Your task to perform on an android device: make emails show in primary in the gmail app Image 0: 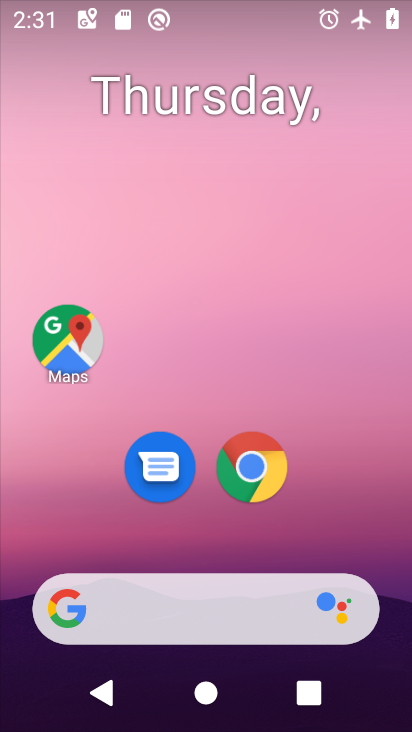
Step 0: drag from (215, 550) to (405, 723)
Your task to perform on an android device: make emails show in primary in the gmail app Image 1: 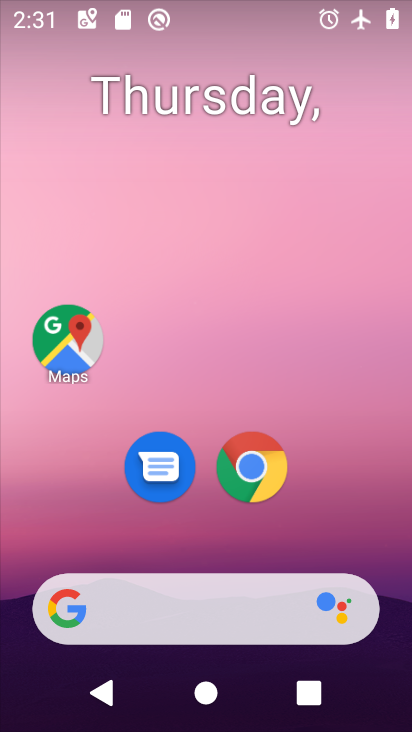
Step 1: drag from (261, 548) to (169, 0)
Your task to perform on an android device: make emails show in primary in the gmail app Image 2: 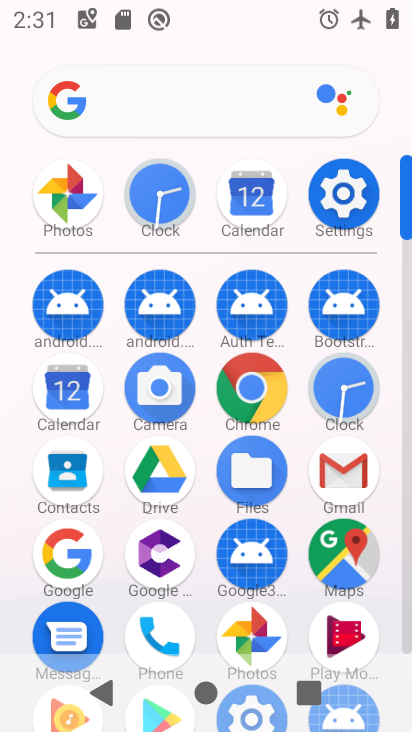
Step 2: click (319, 478)
Your task to perform on an android device: make emails show in primary in the gmail app Image 3: 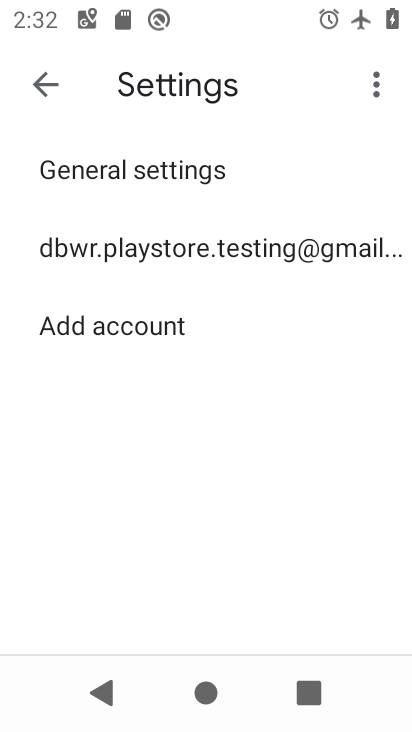
Step 3: click (133, 236)
Your task to perform on an android device: make emails show in primary in the gmail app Image 4: 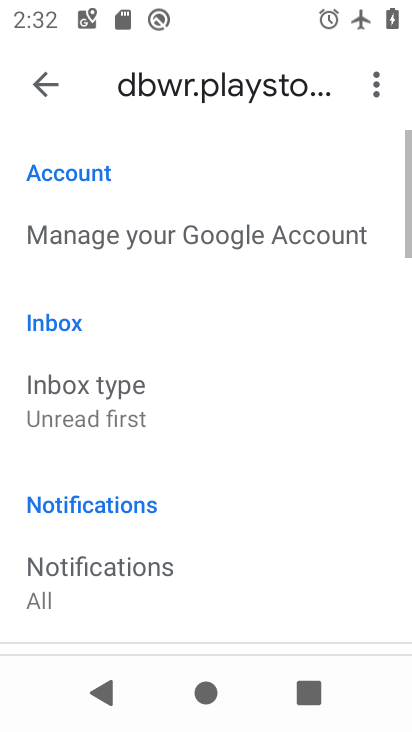
Step 4: click (117, 383)
Your task to perform on an android device: make emails show in primary in the gmail app Image 5: 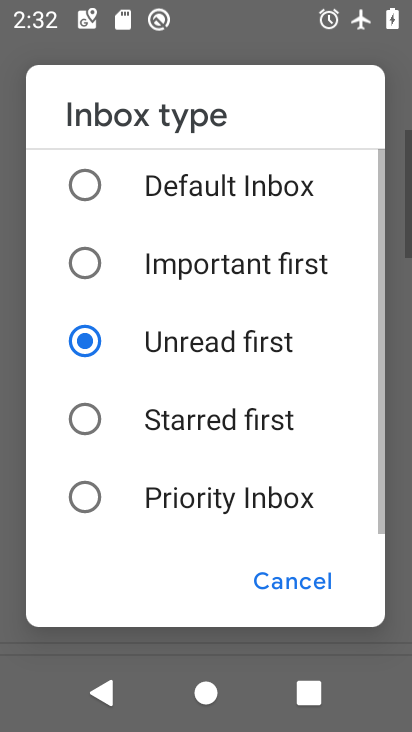
Step 5: click (133, 188)
Your task to perform on an android device: make emails show in primary in the gmail app Image 6: 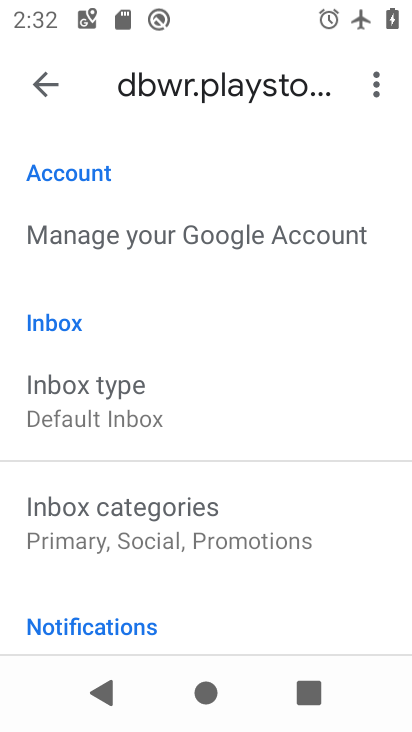
Step 6: task complete